Your task to perform on an android device: What's the weather? Image 0: 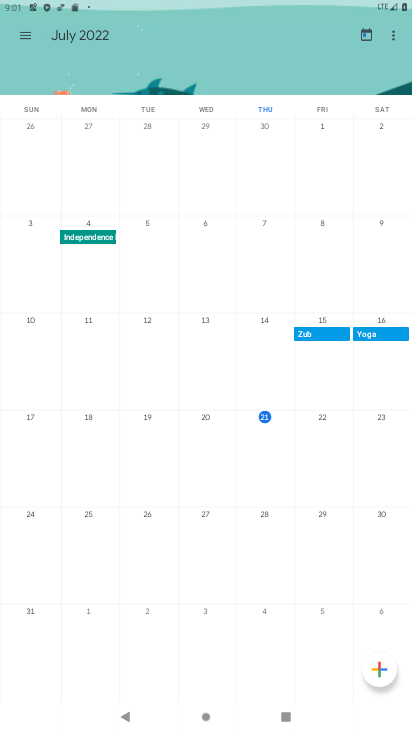
Step 0: press home button
Your task to perform on an android device: What's the weather? Image 1: 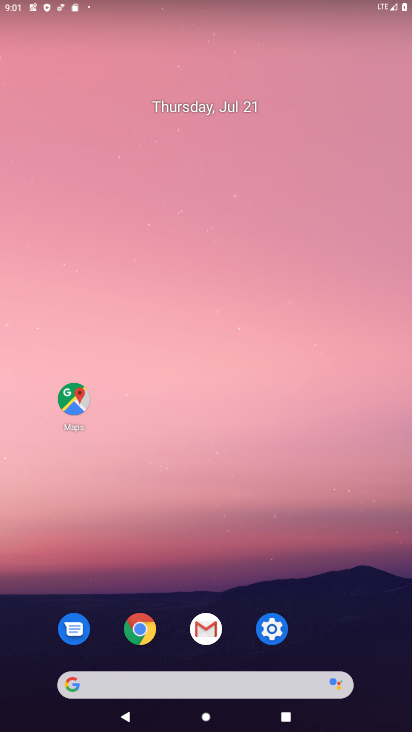
Step 1: click (173, 685)
Your task to perform on an android device: What's the weather? Image 2: 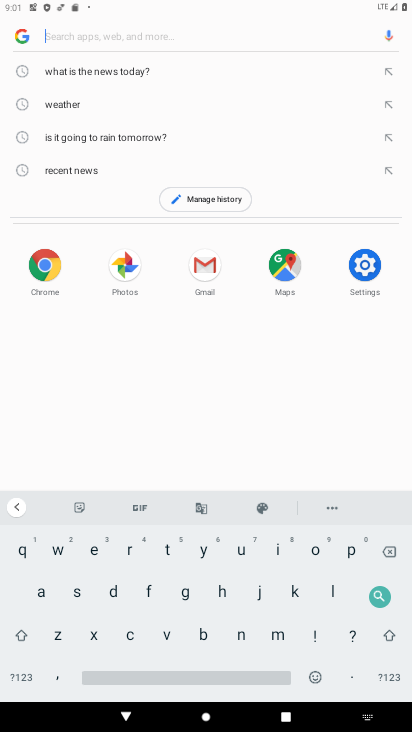
Step 2: click (59, 545)
Your task to perform on an android device: What's the weather? Image 3: 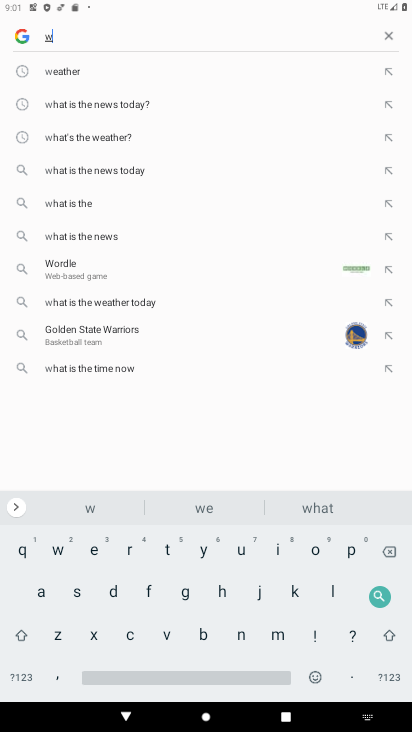
Step 3: click (100, 138)
Your task to perform on an android device: What's the weather? Image 4: 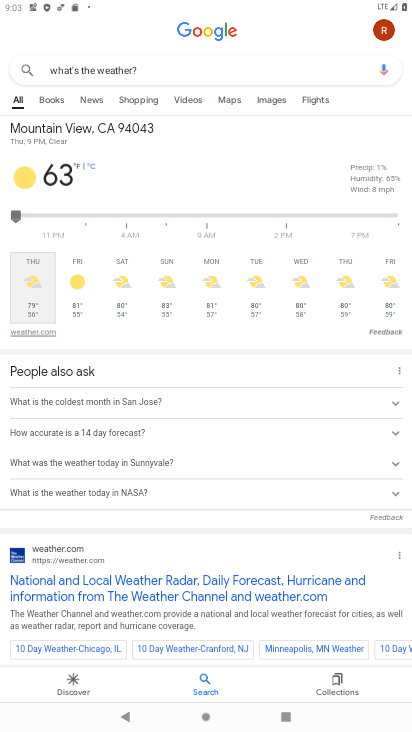
Step 4: task complete